Your task to perform on an android device: View the shopping cart on ebay. Image 0: 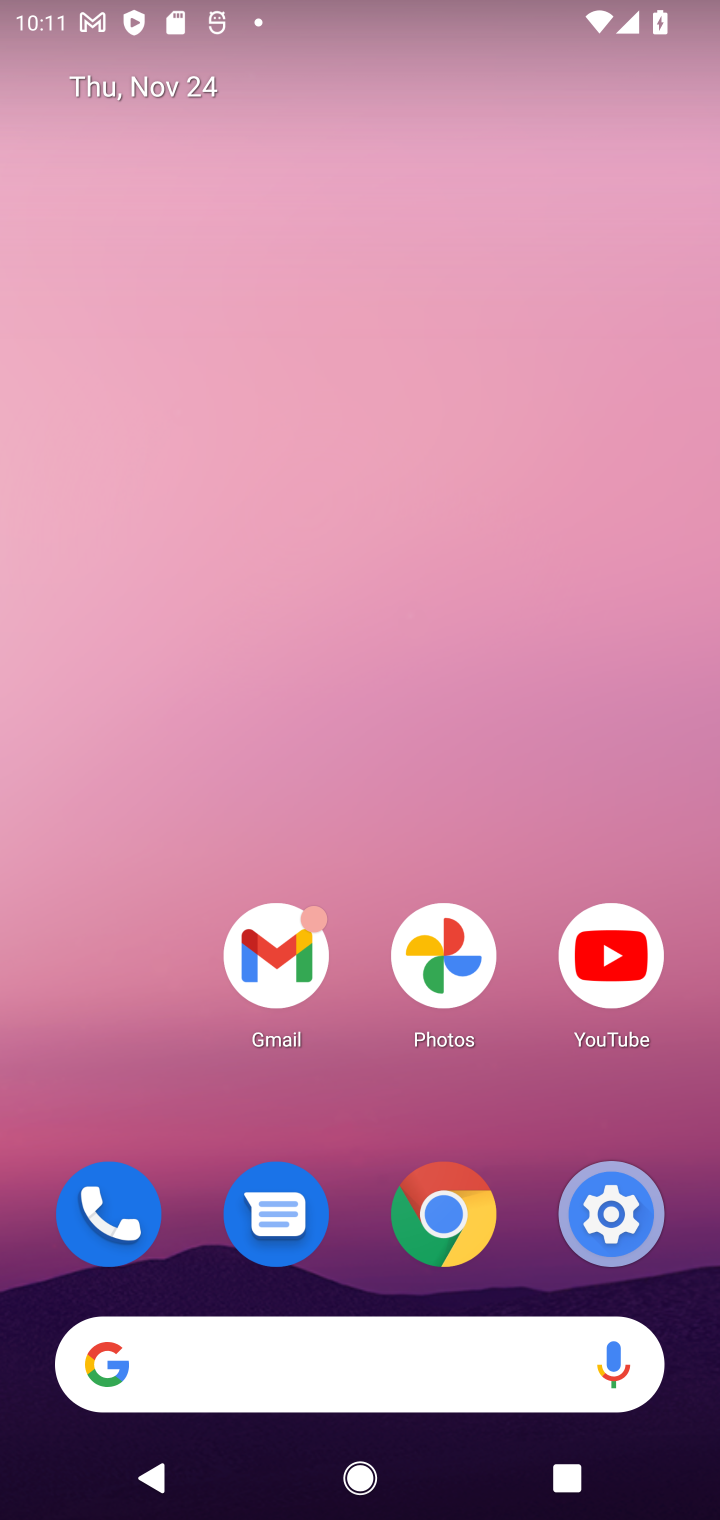
Step 0: click (327, 1355)
Your task to perform on an android device: View the shopping cart on ebay. Image 1: 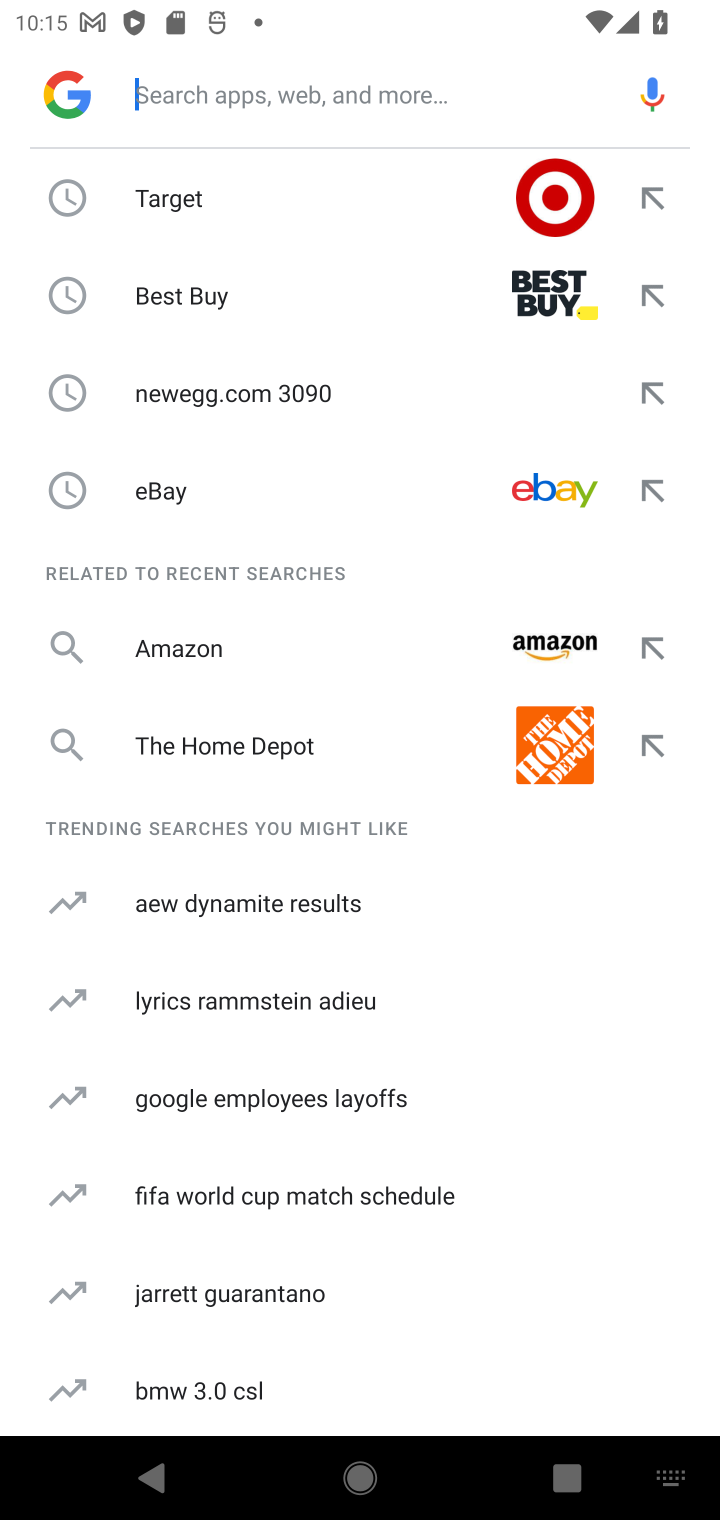
Step 1: task complete